Your task to perform on an android device: Go to notification settings Image 0: 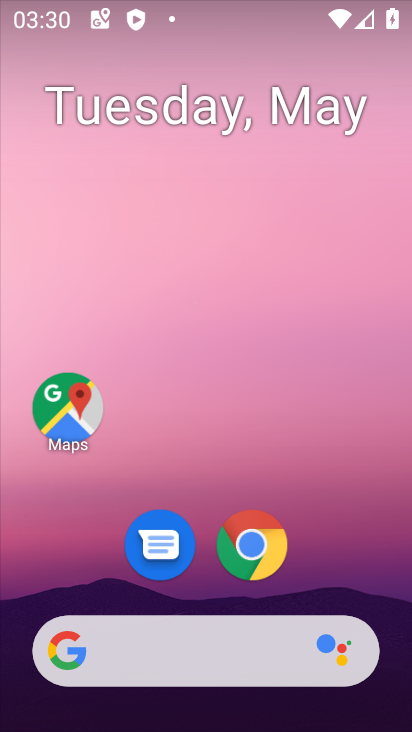
Step 0: drag from (397, 608) to (267, 155)
Your task to perform on an android device: Go to notification settings Image 1: 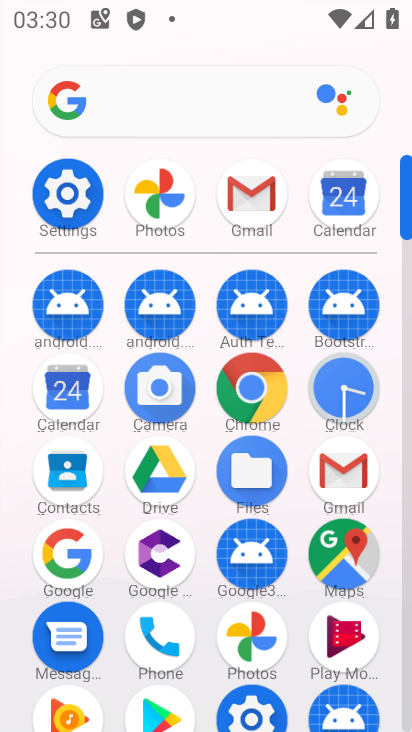
Step 1: click (407, 675)
Your task to perform on an android device: Go to notification settings Image 2: 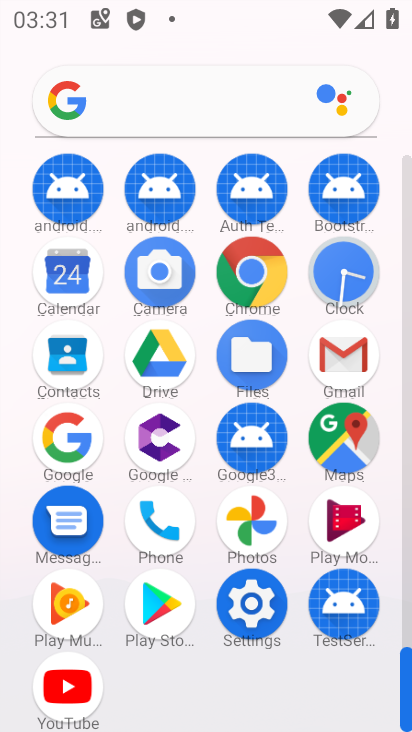
Step 2: click (248, 601)
Your task to perform on an android device: Go to notification settings Image 3: 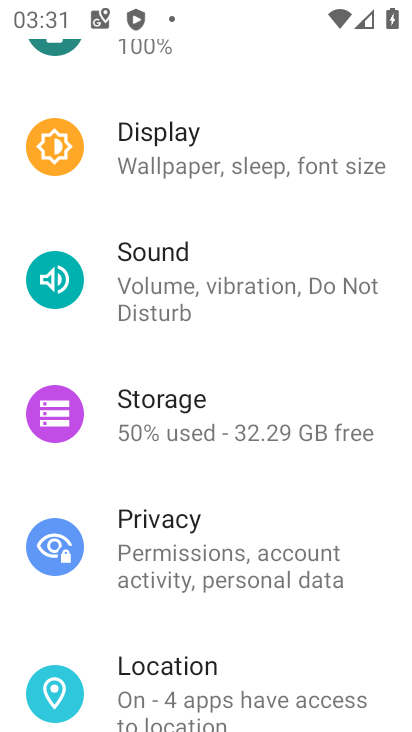
Step 3: drag from (314, 327) to (312, 534)
Your task to perform on an android device: Go to notification settings Image 4: 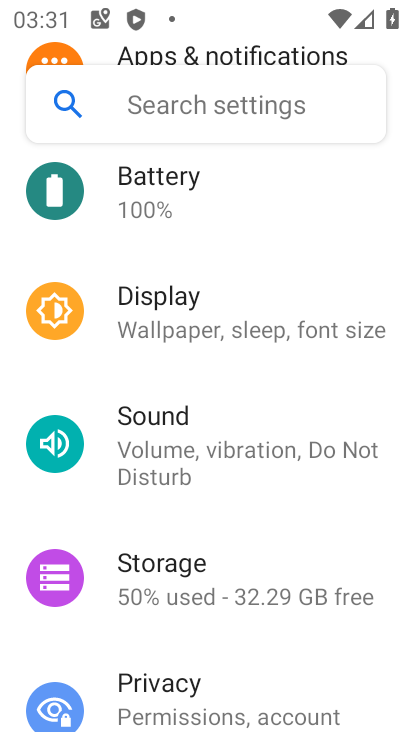
Step 4: drag from (324, 221) to (347, 471)
Your task to perform on an android device: Go to notification settings Image 5: 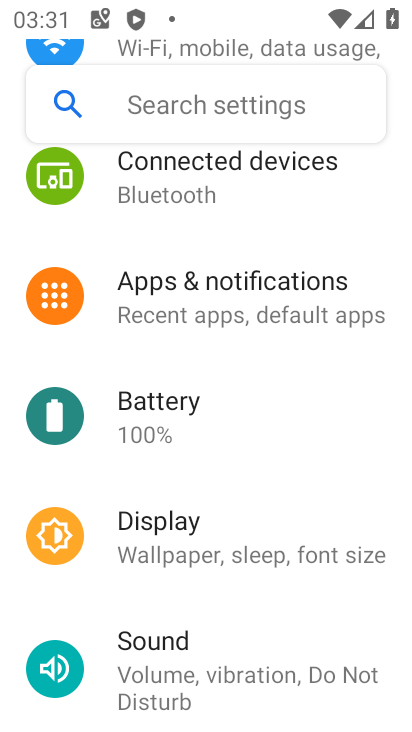
Step 5: click (196, 281)
Your task to perform on an android device: Go to notification settings Image 6: 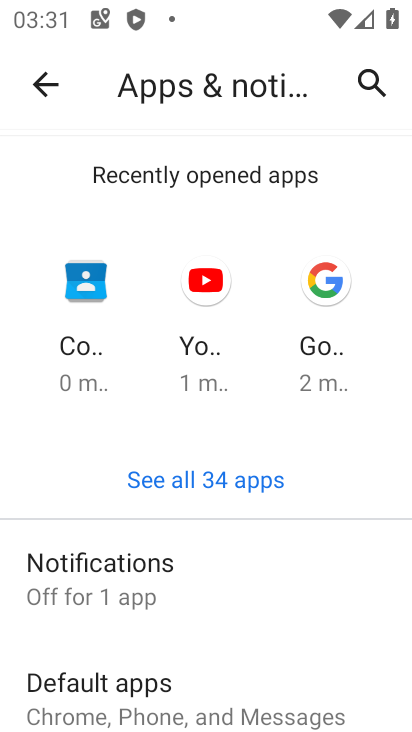
Step 6: click (99, 568)
Your task to perform on an android device: Go to notification settings Image 7: 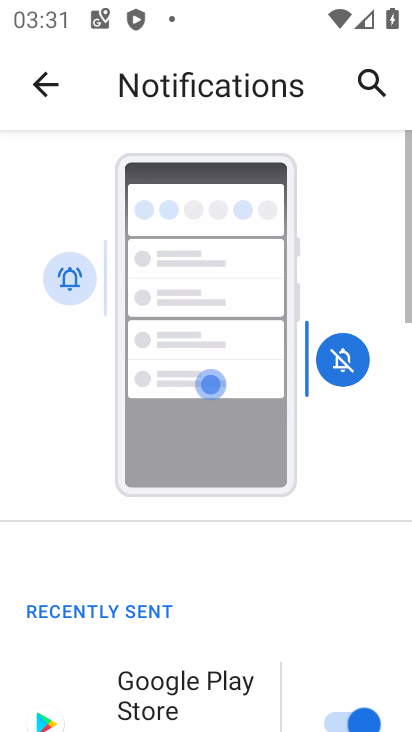
Step 7: drag from (386, 686) to (277, 303)
Your task to perform on an android device: Go to notification settings Image 8: 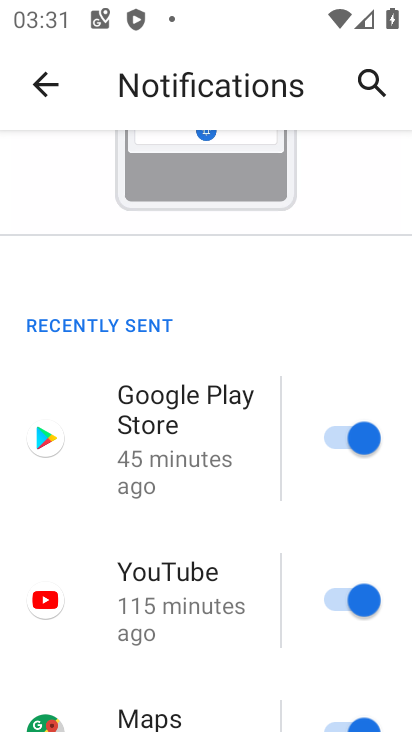
Step 8: drag from (297, 706) to (223, 228)
Your task to perform on an android device: Go to notification settings Image 9: 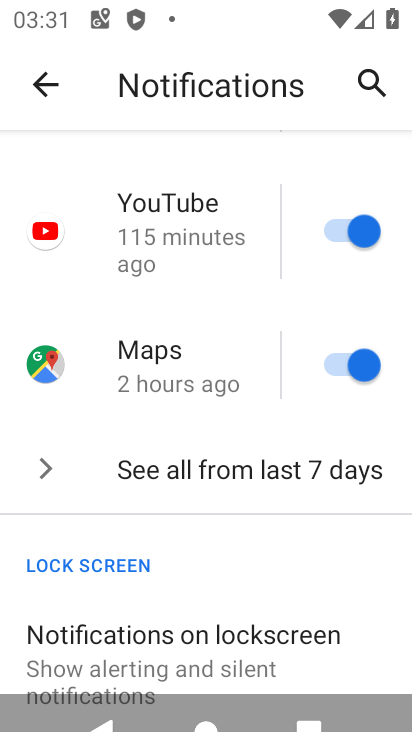
Step 9: drag from (272, 608) to (213, 162)
Your task to perform on an android device: Go to notification settings Image 10: 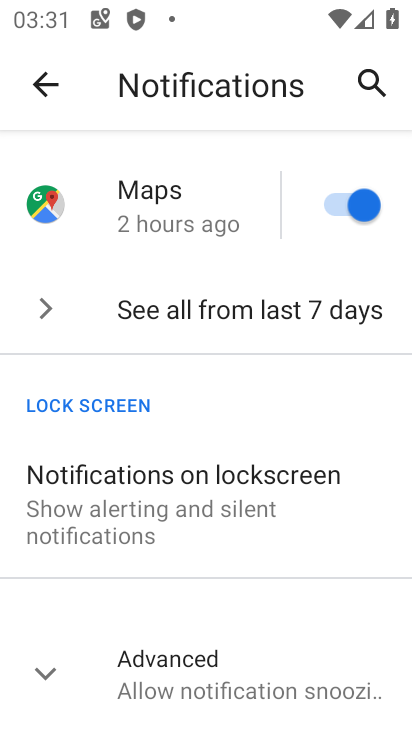
Step 10: click (41, 673)
Your task to perform on an android device: Go to notification settings Image 11: 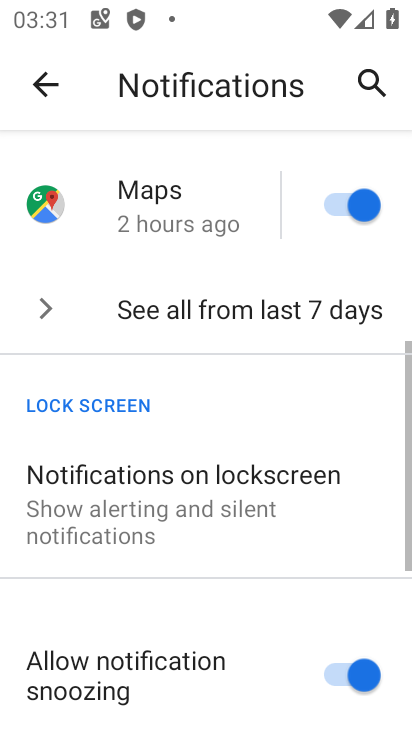
Step 11: task complete